Your task to perform on an android device: Show the shopping cart on amazon. Search for usb-b on amazon, select the first entry, and add it to the cart. Image 0: 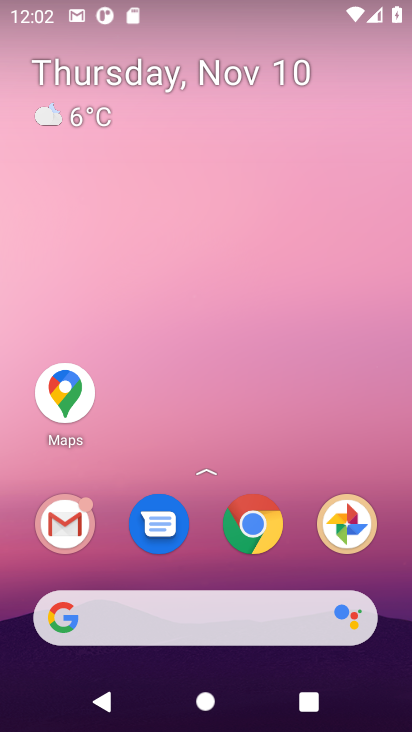
Step 0: click (261, 529)
Your task to perform on an android device: Show the shopping cart on amazon. Search for usb-b on amazon, select the first entry, and add it to the cart. Image 1: 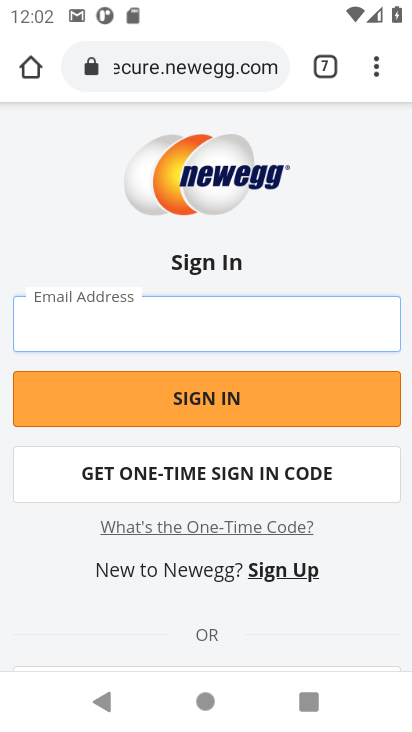
Step 1: click (325, 68)
Your task to perform on an android device: Show the shopping cart on amazon. Search for usb-b on amazon, select the first entry, and add it to the cart. Image 2: 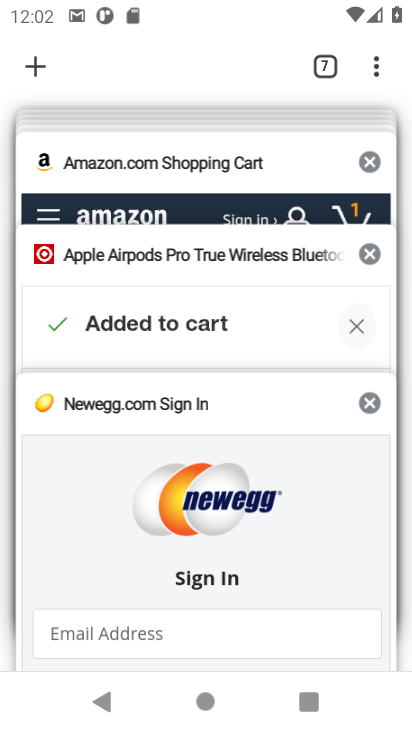
Step 2: click (250, 169)
Your task to perform on an android device: Show the shopping cart on amazon. Search for usb-b on amazon, select the first entry, and add it to the cart. Image 3: 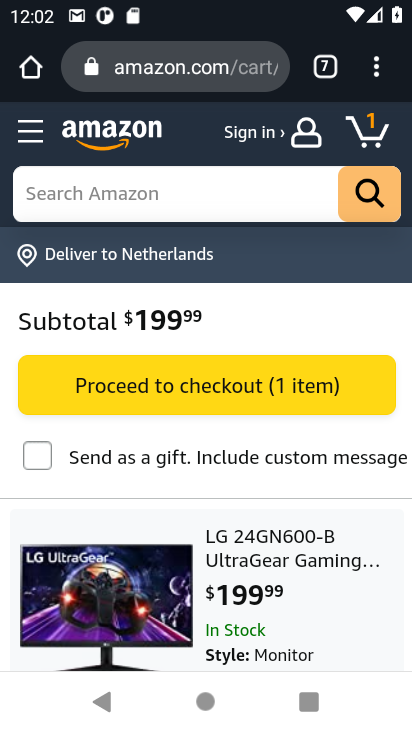
Step 3: click (120, 199)
Your task to perform on an android device: Show the shopping cart on amazon. Search for usb-b on amazon, select the first entry, and add it to the cart. Image 4: 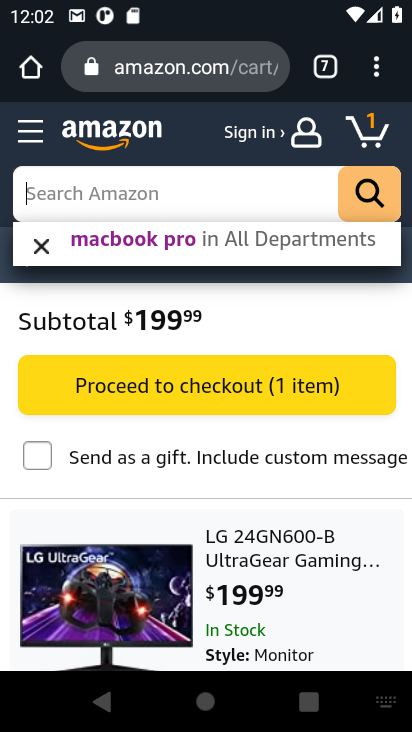
Step 4: type "usb-b"
Your task to perform on an android device: Show the shopping cart on amazon. Search for usb-b on amazon, select the first entry, and add it to the cart. Image 5: 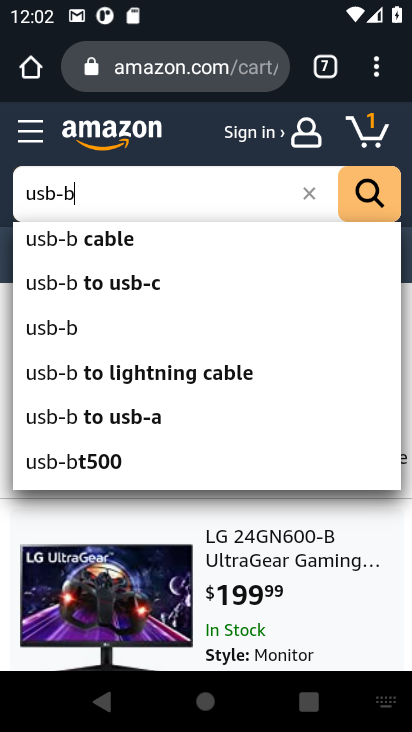
Step 5: click (76, 321)
Your task to perform on an android device: Show the shopping cart on amazon. Search for usb-b on amazon, select the first entry, and add it to the cart. Image 6: 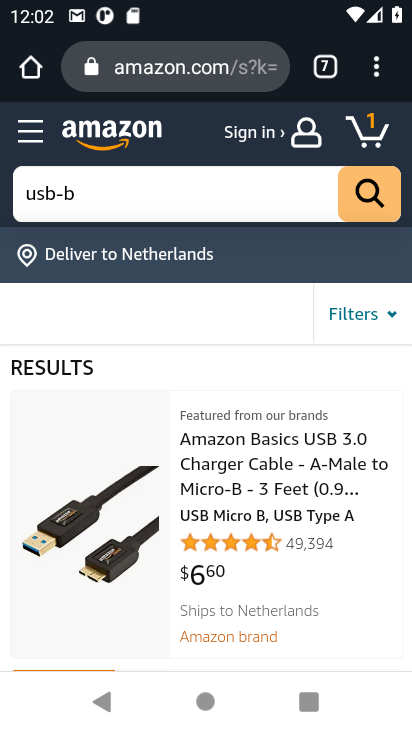
Step 6: click (228, 456)
Your task to perform on an android device: Show the shopping cart on amazon. Search for usb-b on amazon, select the first entry, and add it to the cart. Image 7: 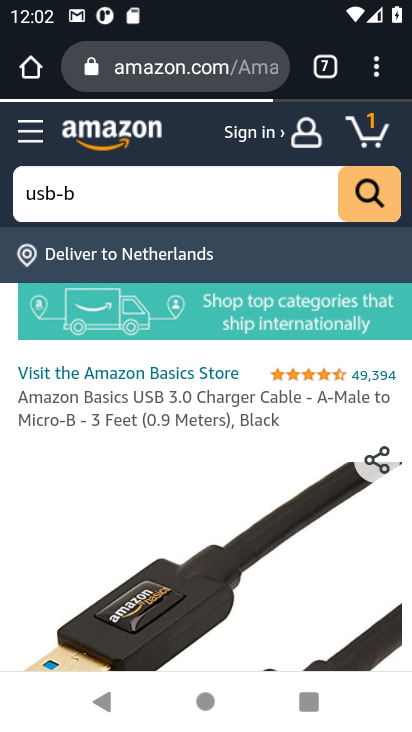
Step 7: drag from (243, 614) to (237, 135)
Your task to perform on an android device: Show the shopping cart on amazon. Search for usb-b on amazon, select the first entry, and add it to the cart. Image 8: 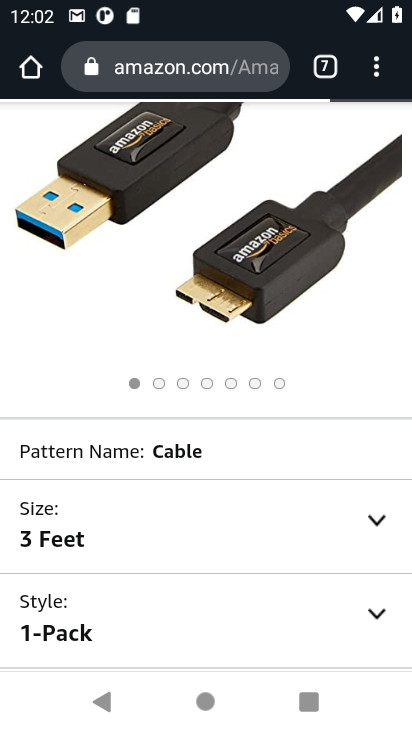
Step 8: drag from (189, 509) to (273, 57)
Your task to perform on an android device: Show the shopping cart on amazon. Search for usb-b on amazon, select the first entry, and add it to the cart. Image 9: 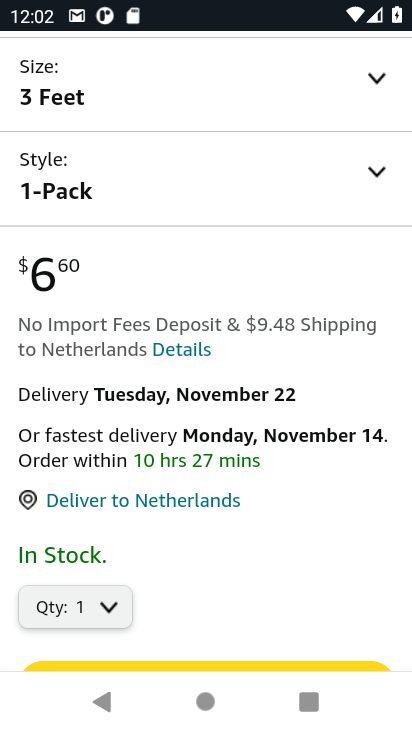
Step 9: drag from (200, 496) to (252, 3)
Your task to perform on an android device: Show the shopping cart on amazon. Search for usb-b on amazon, select the first entry, and add it to the cart. Image 10: 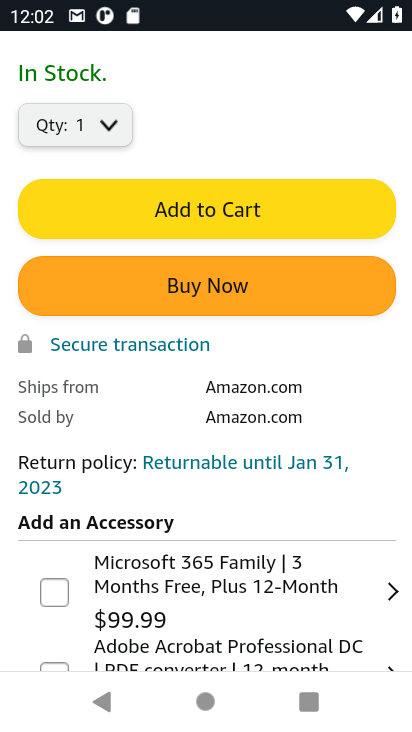
Step 10: click (254, 218)
Your task to perform on an android device: Show the shopping cart on amazon. Search for usb-b on amazon, select the first entry, and add it to the cart. Image 11: 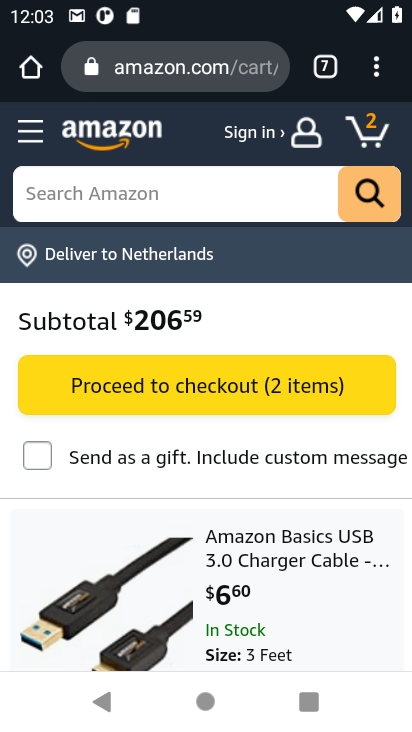
Step 11: task complete